Your task to perform on an android device: turn off data saver in the chrome app Image 0: 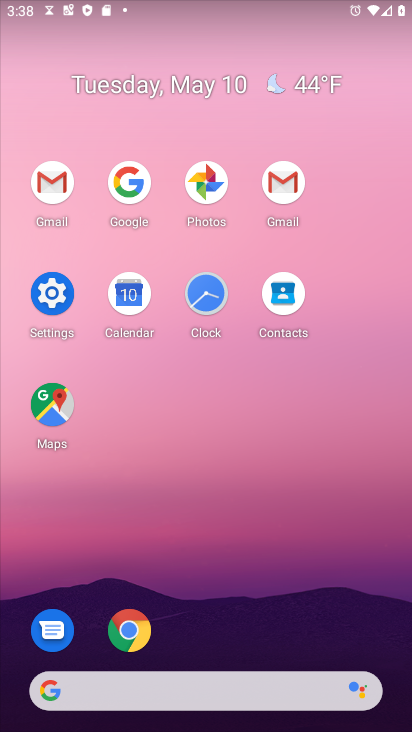
Step 0: click (132, 620)
Your task to perform on an android device: turn off data saver in the chrome app Image 1: 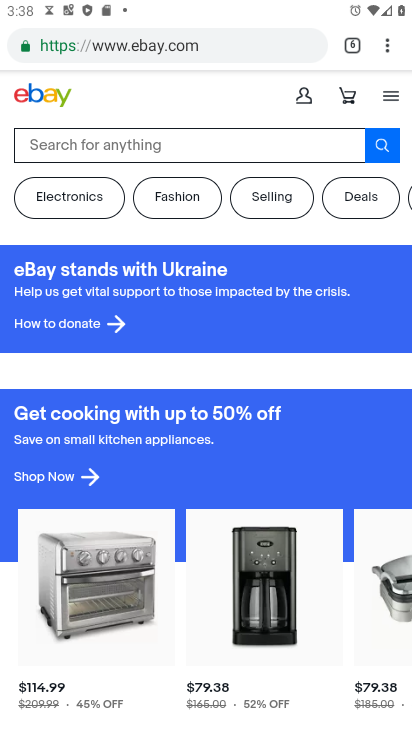
Step 1: click (385, 44)
Your task to perform on an android device: turn off data saver in the chrome app Image 2: 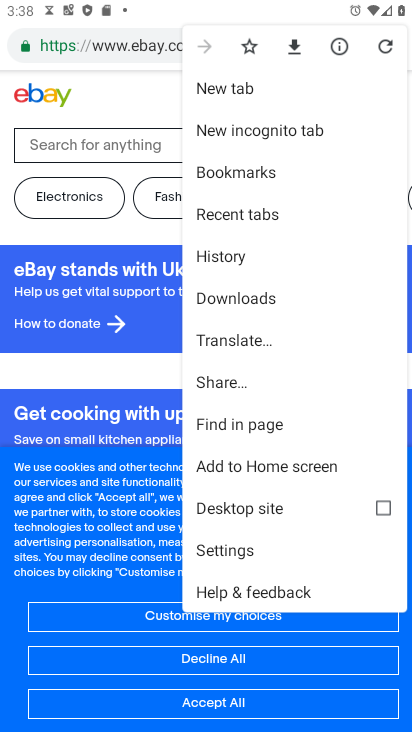
Step 2: click (245, 550)
Your task to perform on an android device: turn off data saver in the chrome app Image 3: 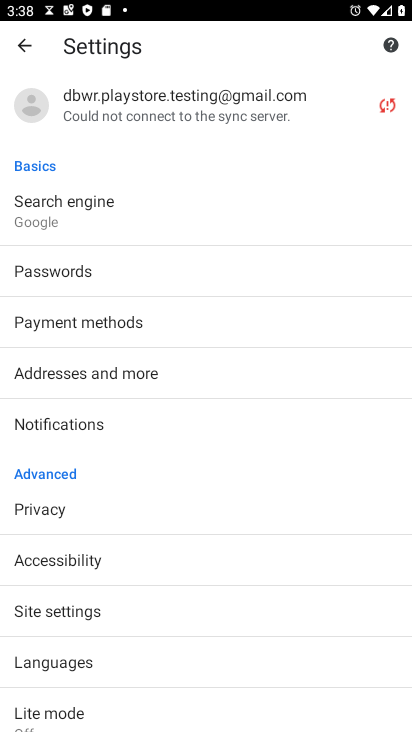
Step 3: click (98, 708)
Your task to perform on an android device: turn off data saver in the chrome app Image 4: 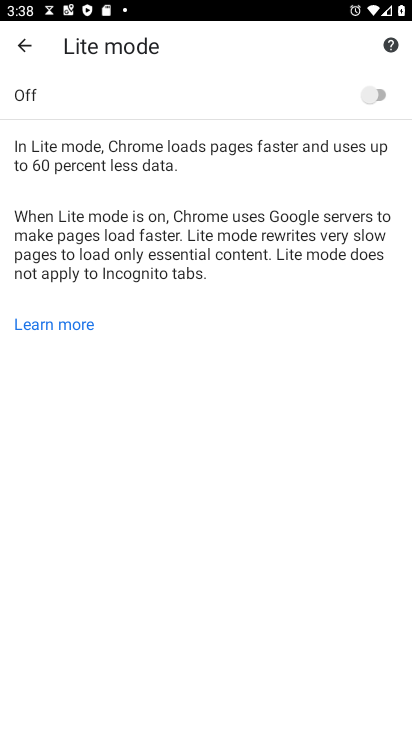
Step 4: task complete